Your task to perform on an android device: Is it going to rain today? Image 0: 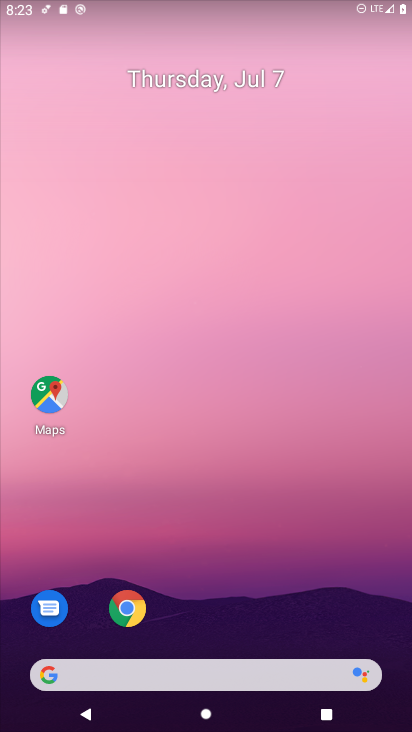
Step 0: drag from (32, 239) to (358, 268)
Your task to perform on an android device: Is it going to rain today? Image 1: 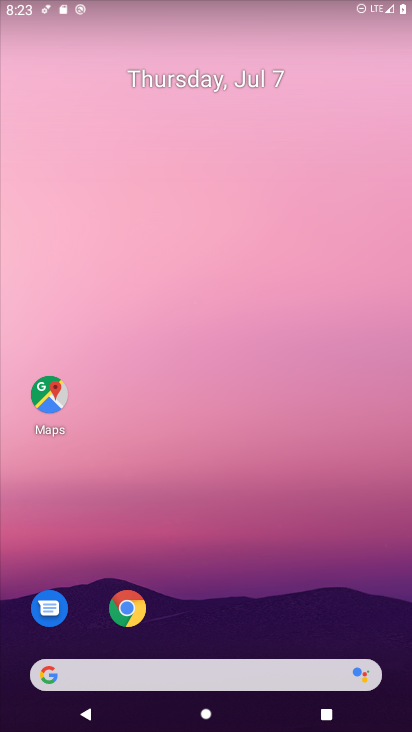
Step 1: drag from (19, 273) to (411, 302)
Your task to perform on an android device: Is it going to rain today? Image 2: 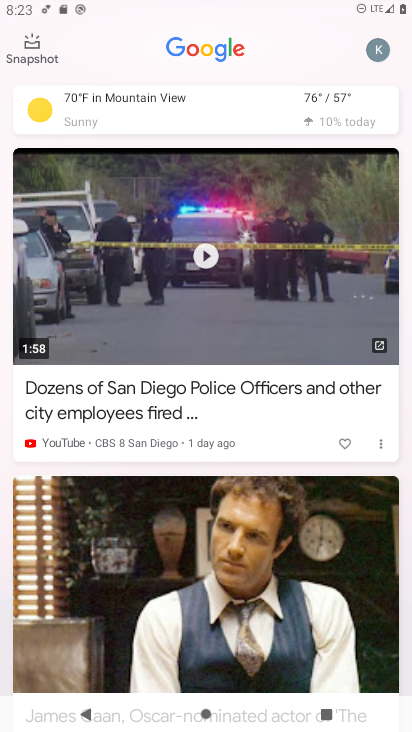
Step 2: click (99, 101)
Your task to perform on an android device: Is it going to rain today? Image 3: 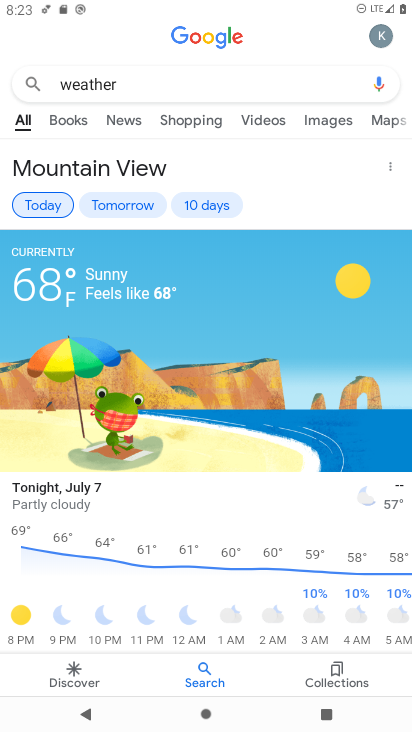
Step 3: task complete